Your task to perform on an android device: Open Chrome and go to settings Image 0: 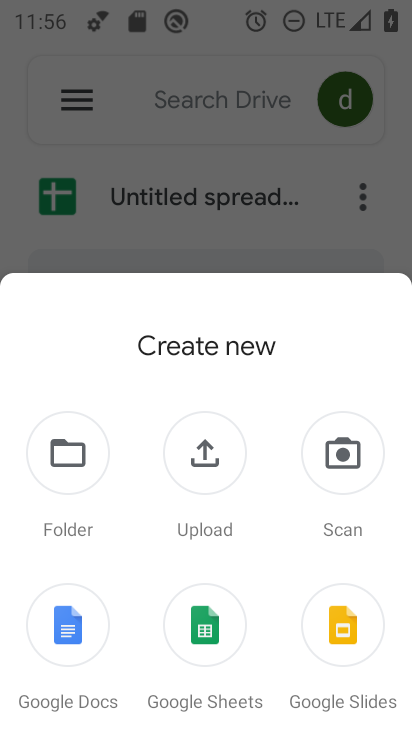
Step 0: press home button
Your task to perform on an android device: Open Chrome and go to settings Image 1: 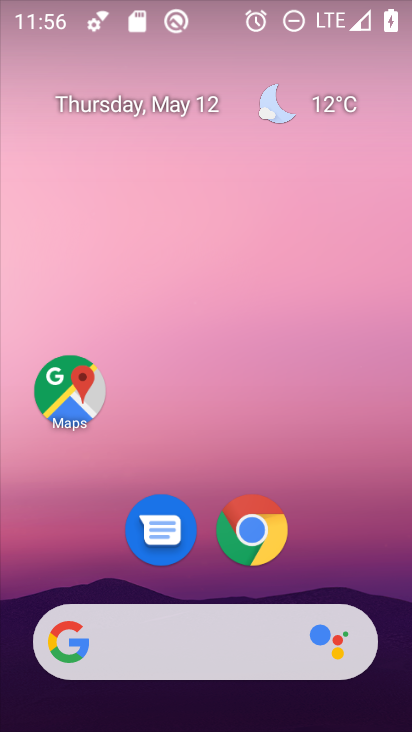
Step 1: click (266, 554)
Your task to perform on an android device: Open Chrome and go to settings Image 2: 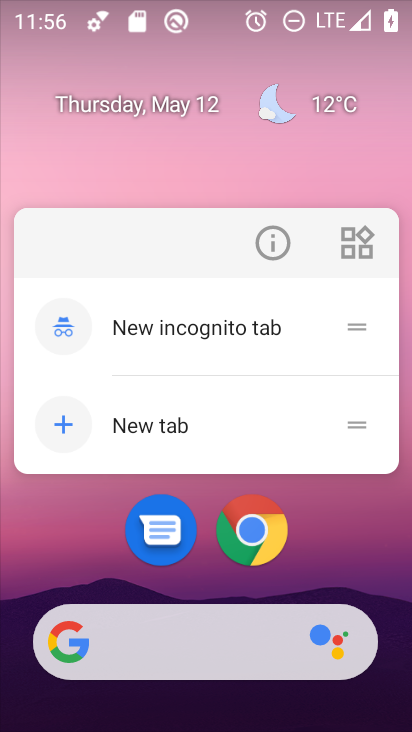
Step 2: click (253, 538)
Your task to perform on an android device: Open Chrome and go to settings Image 3: 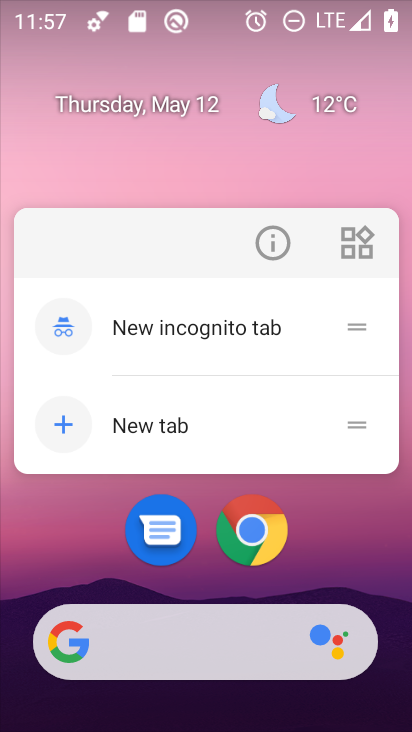
Step 3: click (258, 532)
Your task to perform on an android device: Open Chrome and go to settings Image 4: 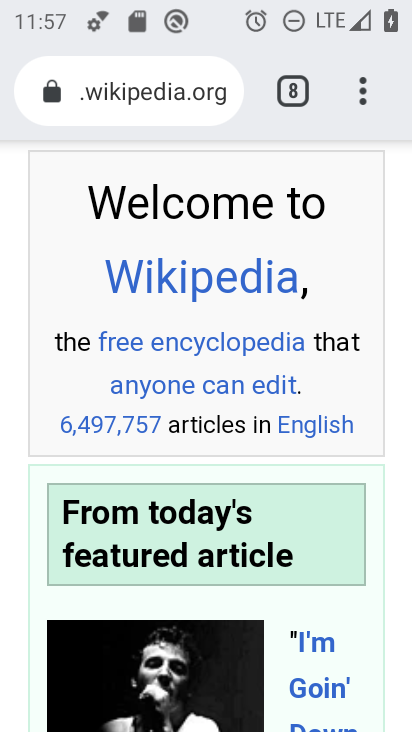
Step 4: task complete